Your task to perform on an android device: clear history in the chrome app Image 0: 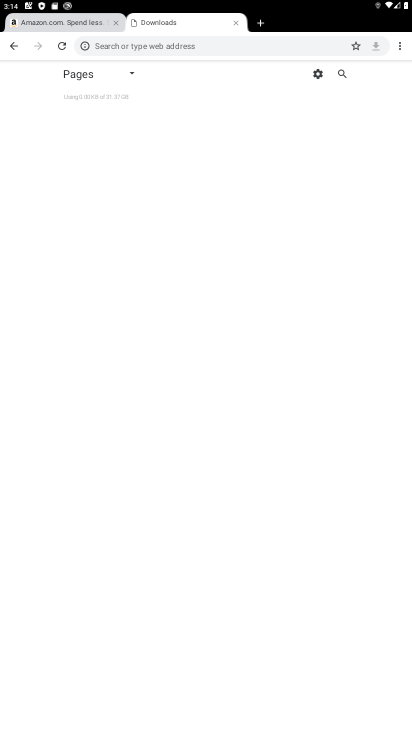
Step 0: press home button
Your task to perform on an android device: clear history in the chrome app Image 1: 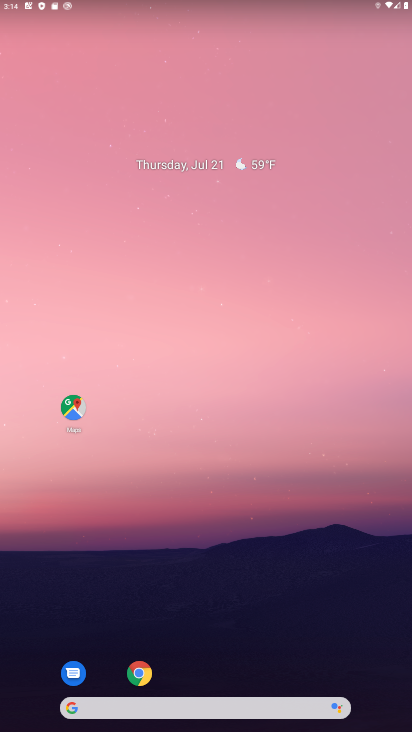
Step 1: click (133, 670)
Your task to perform on an android device: clear history in the chrome app Image 2: 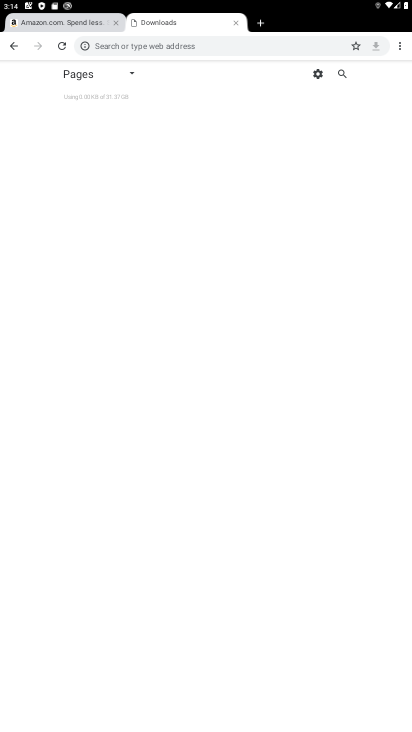
Step 2: click (398, 44)
Your task to perform on an android device: clear history in the chrome app Image 3: 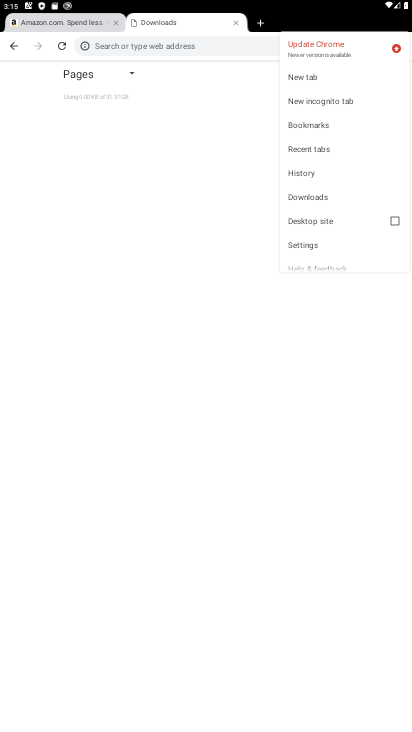
Step 3: click (333, 175)
Your task to perform on an android device: clear history in the chrome app Image 4: 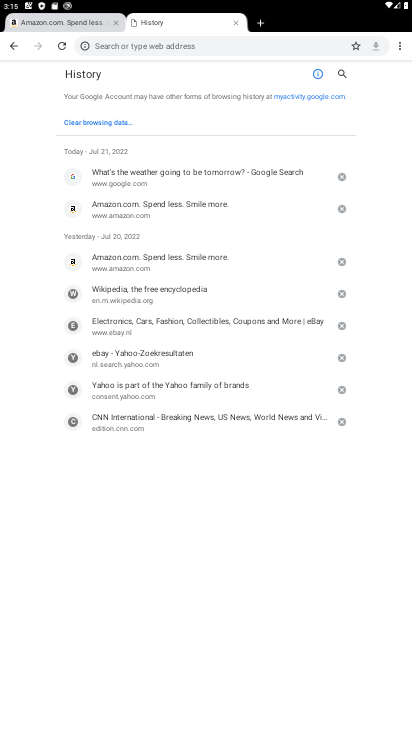
Step 4: click (116, 121)
Your task to perform on an android device: clear history in the chrome app Image 5: 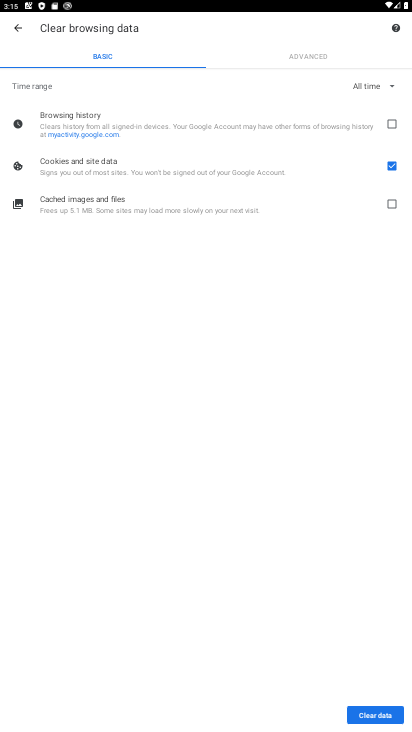
Step 5: click (391, 166)
Your task to perform on an android device: clear history in the chrome app Image 6: 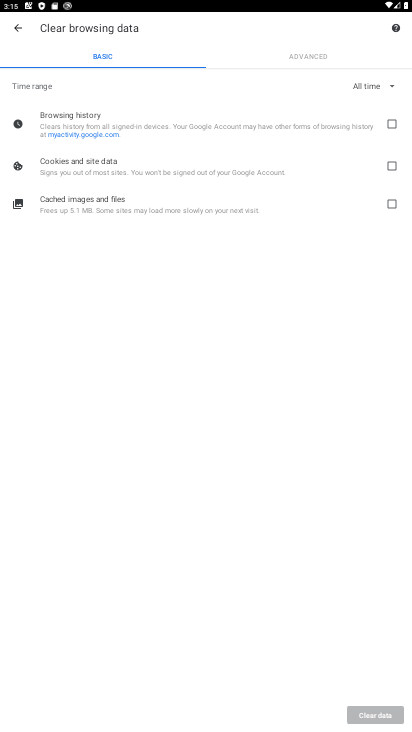
Step 6: click (393, 116)
Your task to perform on an android device: clear history in the chrome app Image 7: 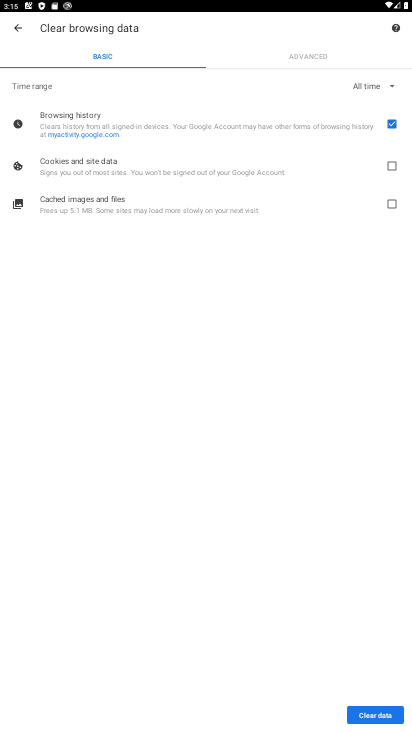
Step 7: click (371, 712)
Your task to perform on an android device: clear history in the chrome app Image 8: 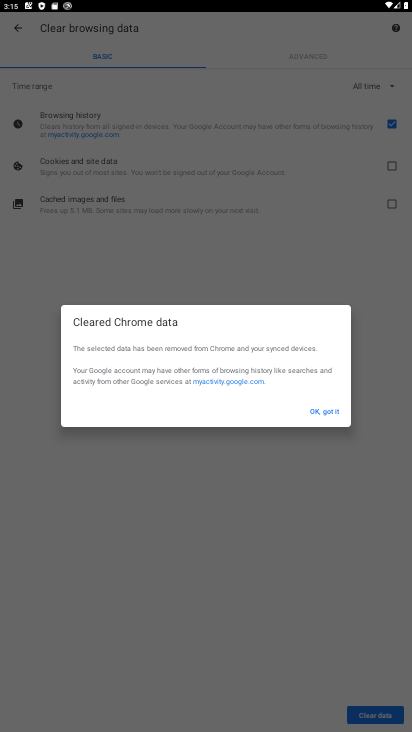
Step 8: click (325, 408)
Your task to perform on an android device: clear history in the chrome app Image 9: 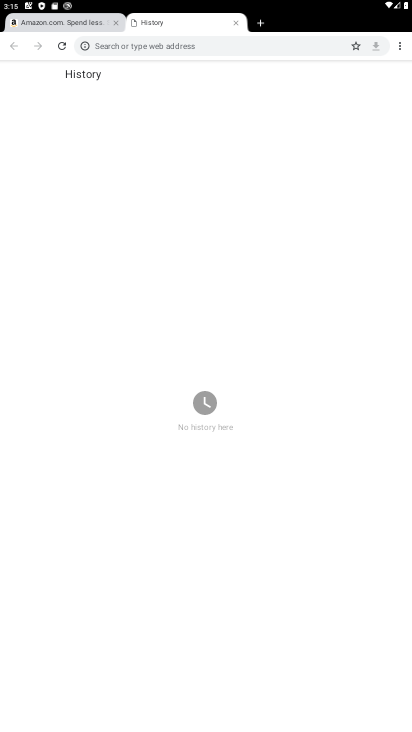
Step 9: task complete